Your task to perform on an android device: add a contact Image 0: 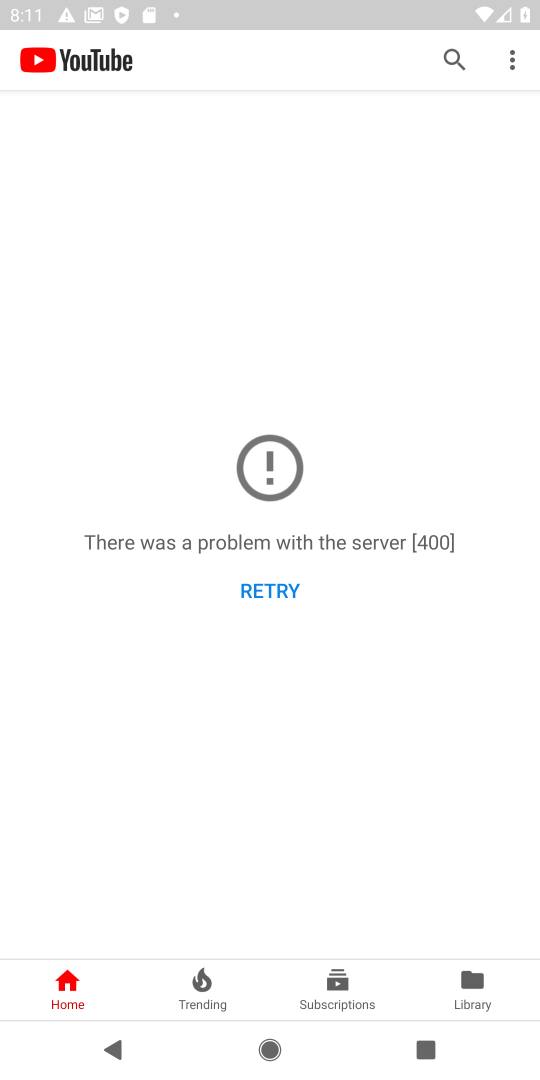
Step 0: press home button
Your task to perform on an android device: add a contact Image 1: 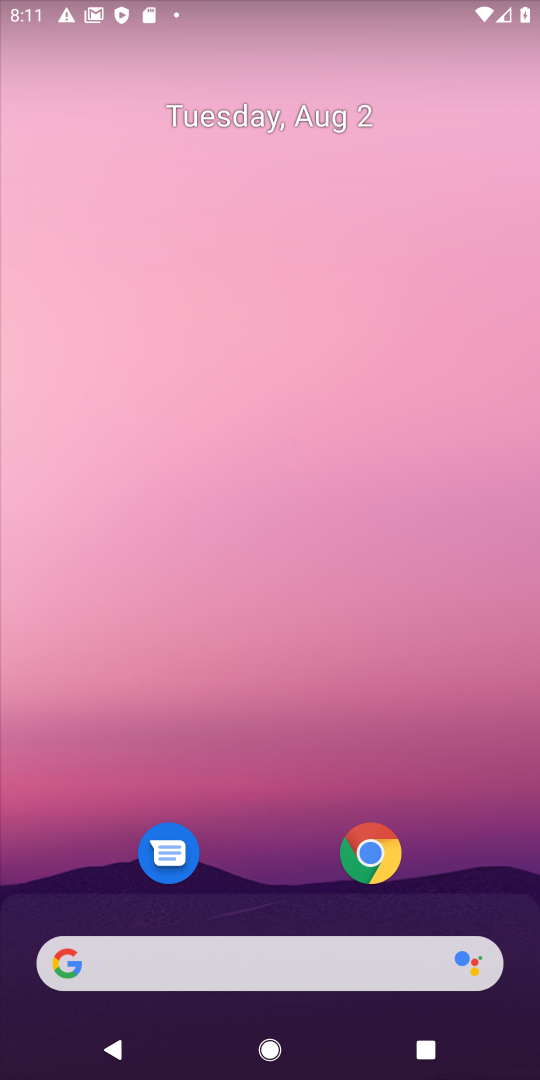
Step 1: drag from (224, 718) to (221, 96)
Your task to perform on an android device: add a contact Image 2: 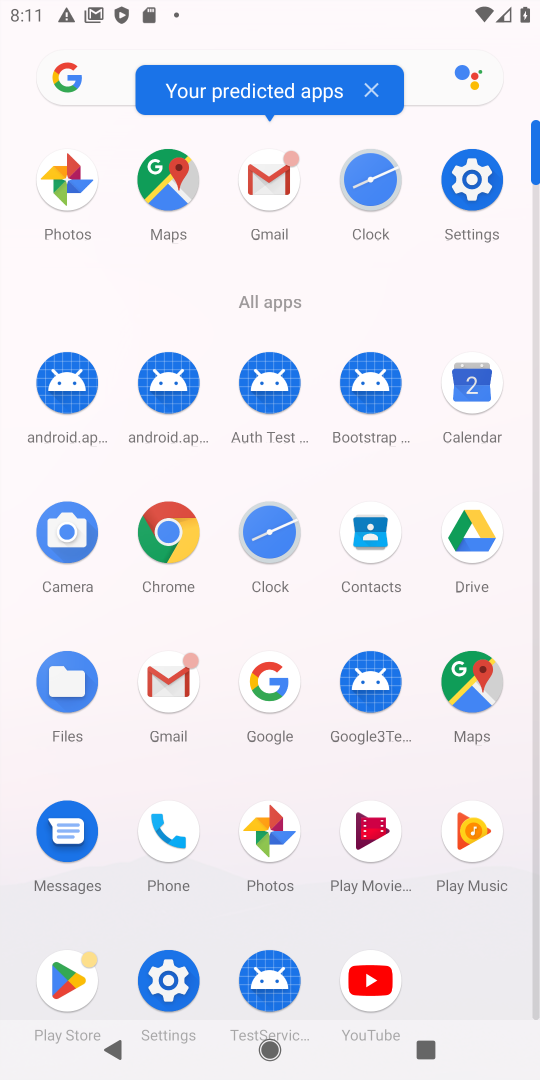
Step 2: click (388, 535)
Your task to perform on an android device: add a contact Image 3: 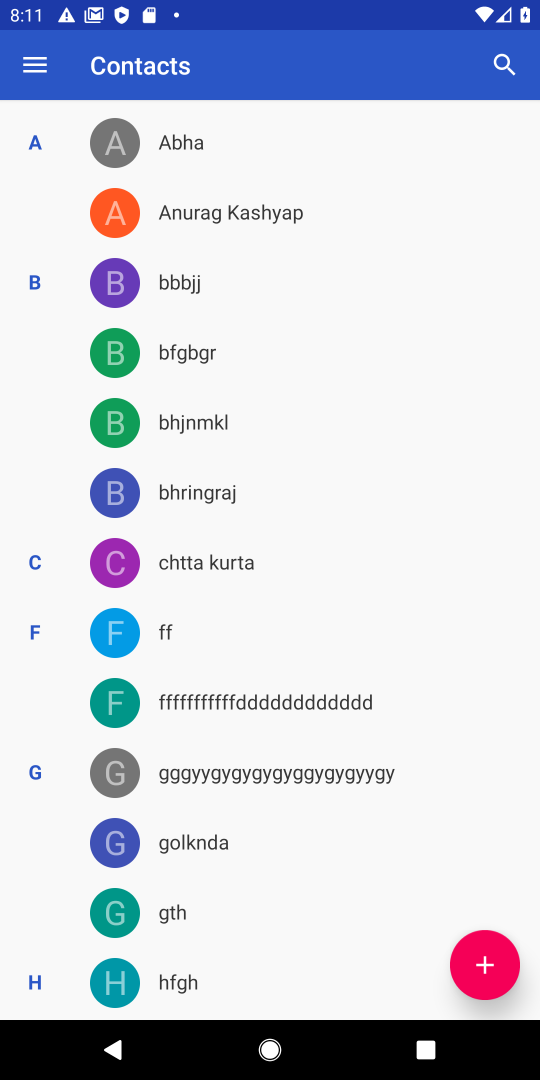
Step 3: click (496, 959)
Your task to perform on an android device: add a contact Image 4: 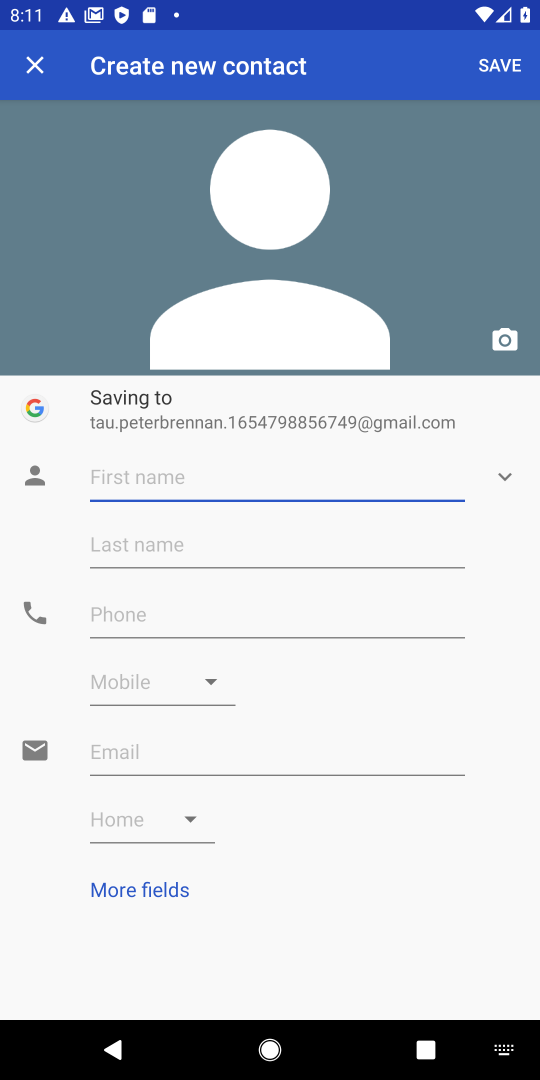
Step 4: click (149, 478)
Your task to perform on an android device: add a contact Image 5: 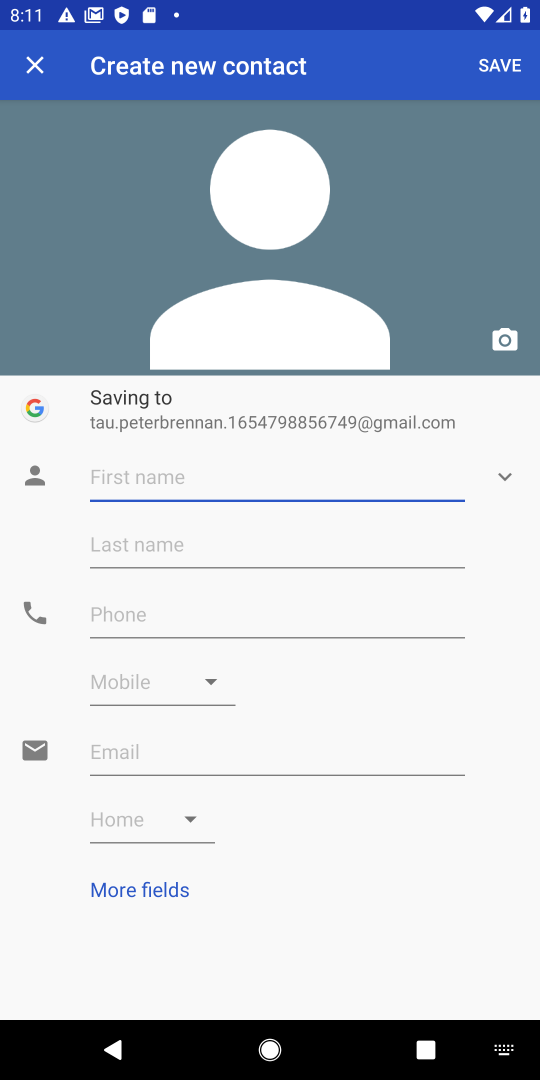
Step 5: type "tina"
Your task to perform on an android device: add a contact Image 6: 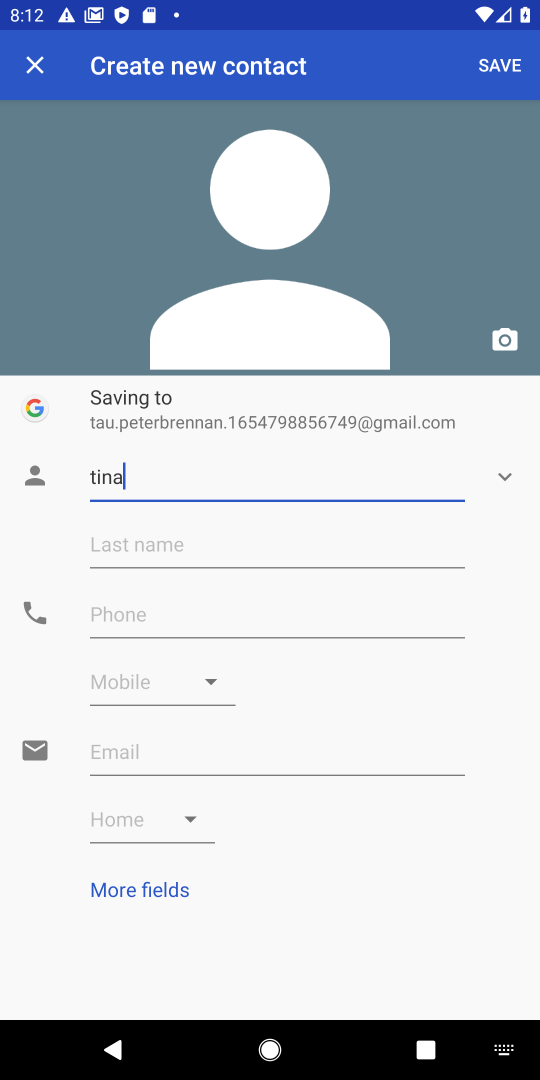
Step 6: click (133, 627)
Your task to perform on an android device: add a contact Image 7: 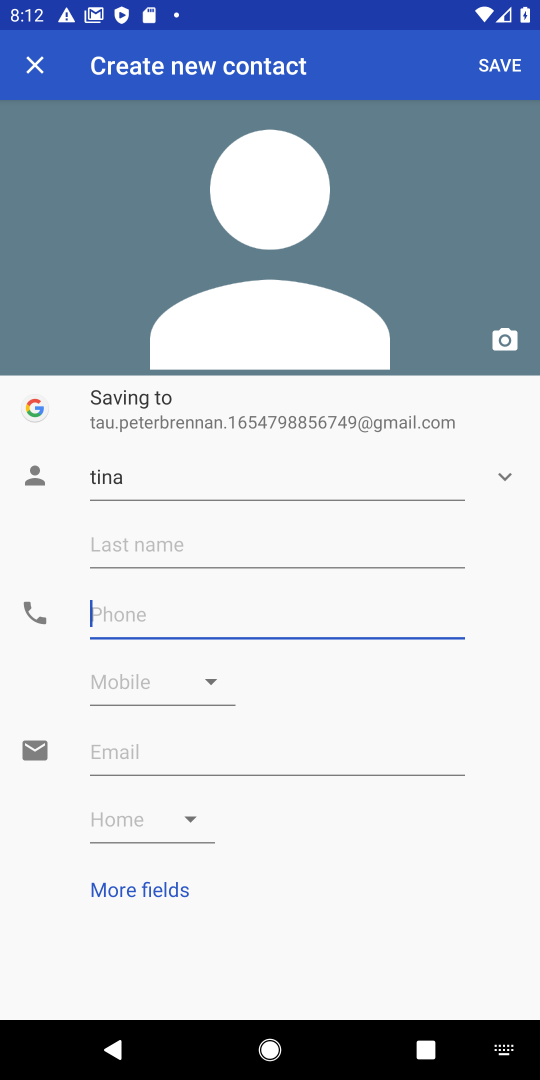
Step 7: type "64296368"
Your task to perform on an android device: add a contact Image 8: 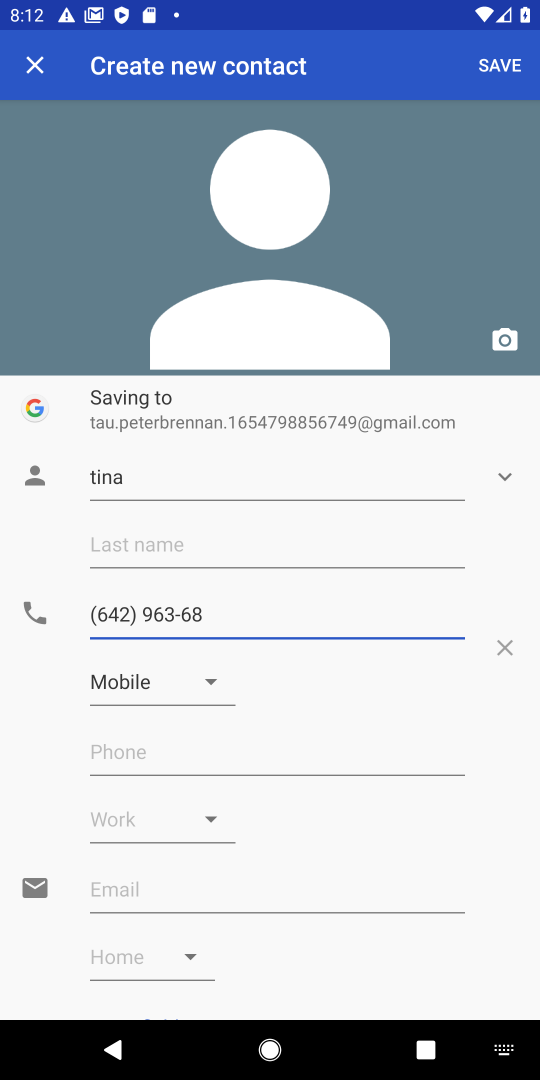
Step 8: click (507, 78)
Your task to perform on an android device: add a contact Image 9: 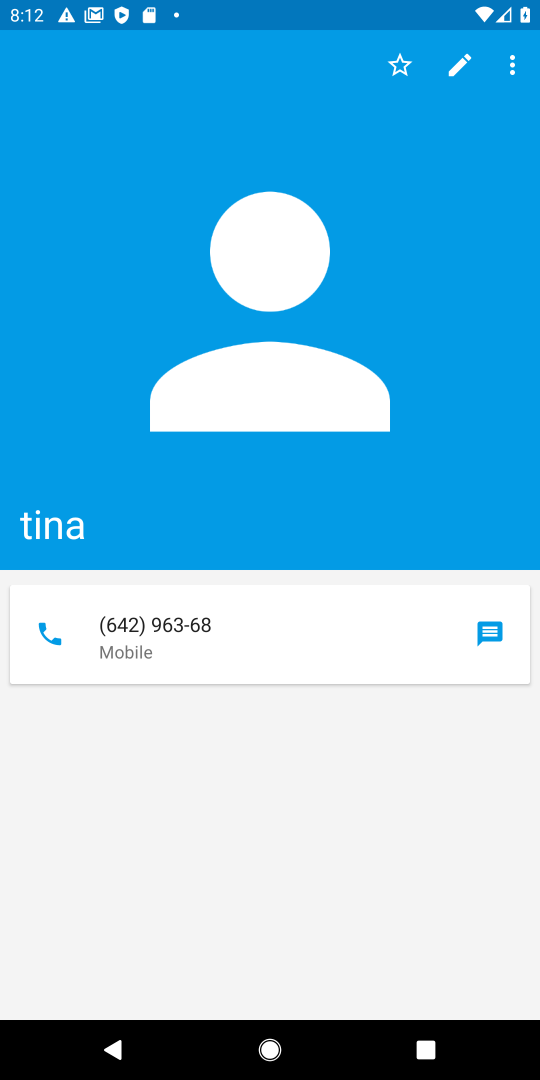
Step 9: task complete